Your task to perform on an android device: turn off data saver in the chrome app Image 0: 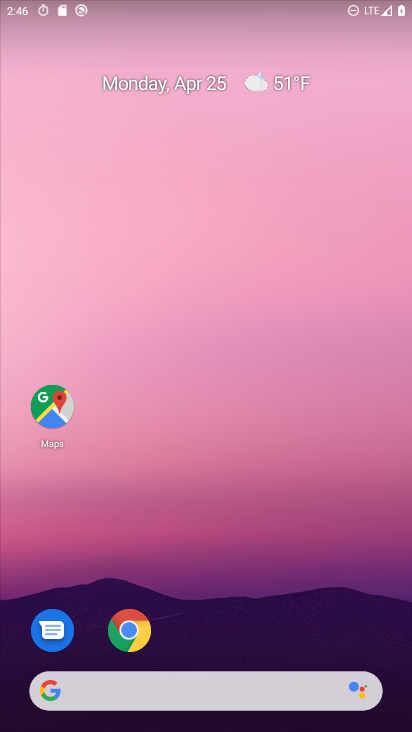
Step 0: drag from (206, 555) to (21, 42)
Your task to perform on an android device: turn off data saver in the chrome app Image 1: 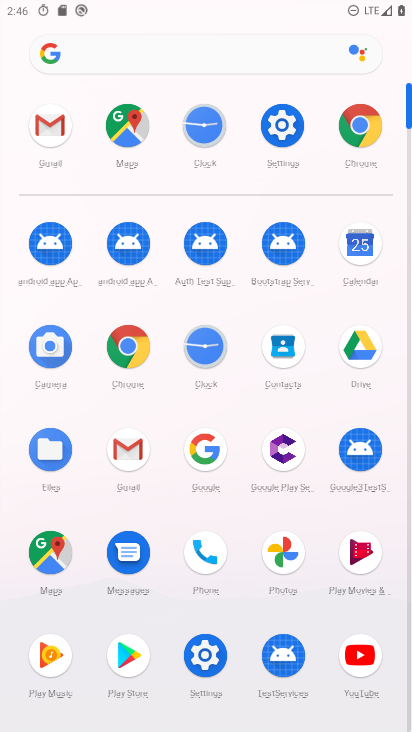
Step 1: click (122, 347)
Your task to perform on an android device: turn off data saver in the chrome app Image 2: 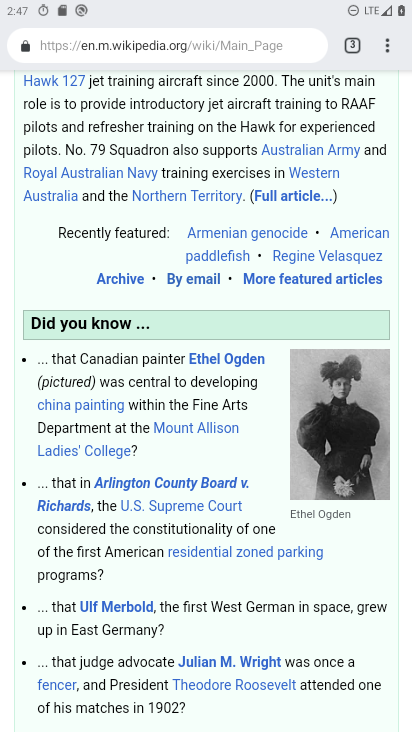
Step 2: drag from (226, 519) to (273, 156)
Your task to perform on an android device: turn off data saver in the chrome app Image 3: 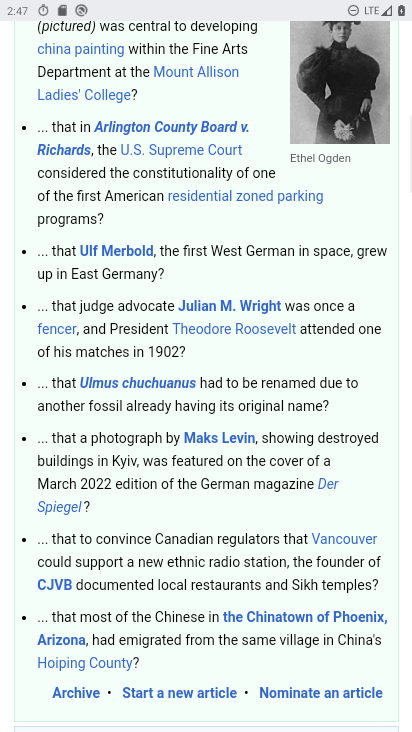
Step 3: drag from (256, 400) to (354, 725)
Your task to perform on an android device: turn off data saver in the chrome app Image 4: 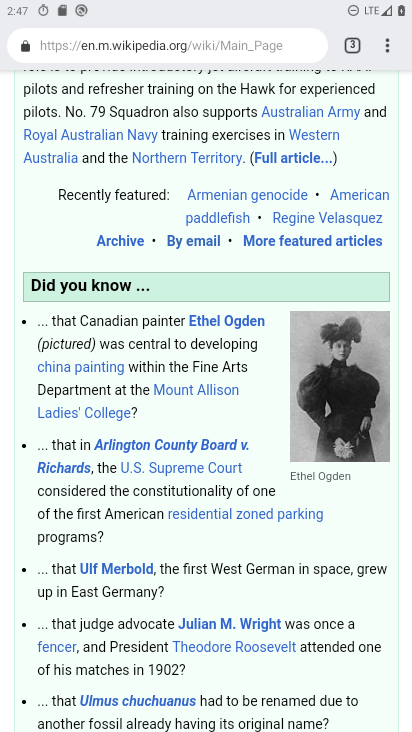
Step 4: drag from (283, 251) to (326, 623)
Your task to perform on an android device: turn off data saver in the chrome app Image 5: 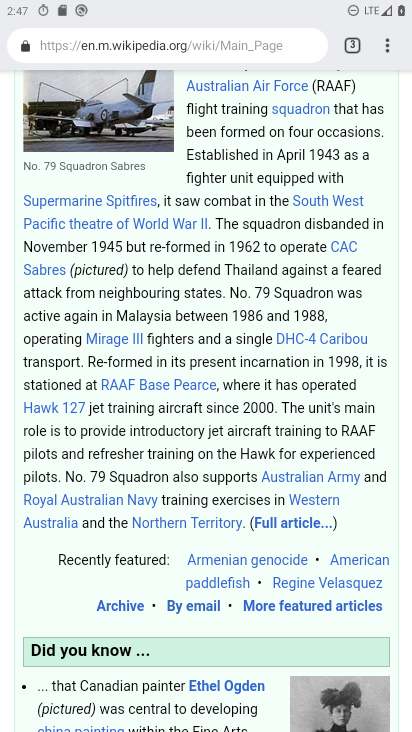
Step 5: drag from (372, 66) to (274, 588)
Your task to perform on an android device: turn off data saver in the chrome app Image 6: 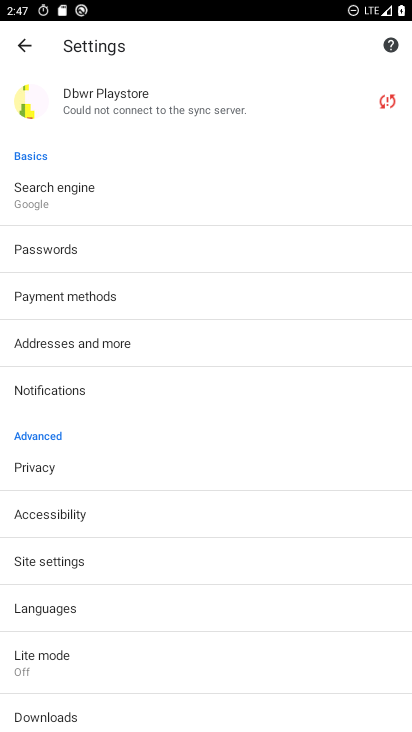
Step 6: click (77, 652)
Your task to perform on an android device: turn off data saver in the chrome app Image 7: 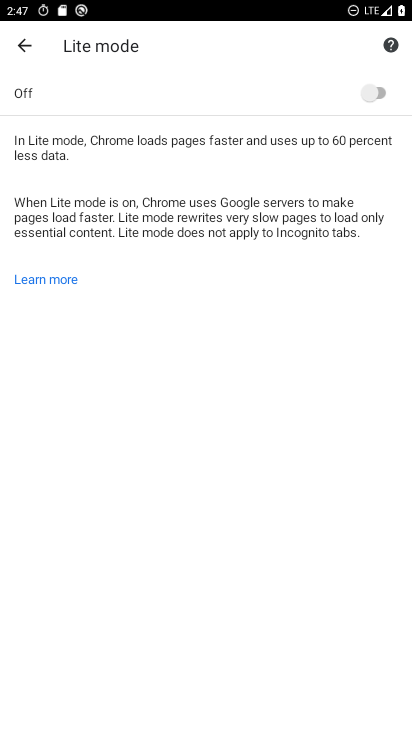
Step 7: task complete